Your task to perform on an android device: remove spam from my inbox in the gmail app Image 0: 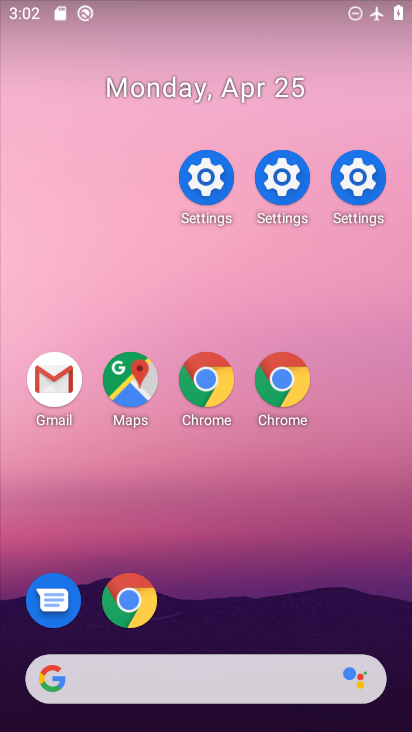
Step 0: drag from (294, 641) to (399, 523)
Your task to perform on an android device: remove spam from my inbox in the gmail app Image 1: 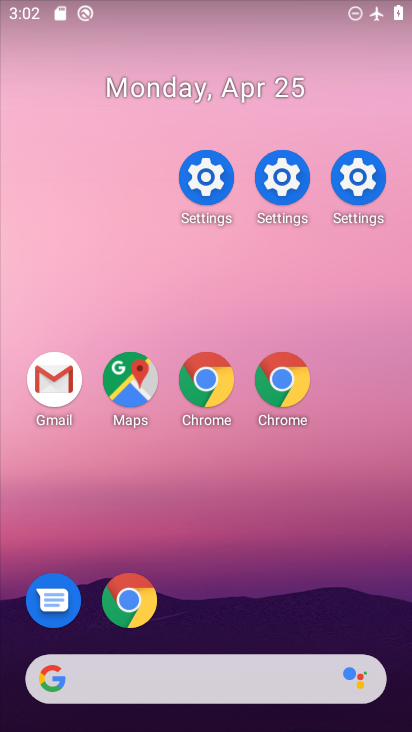
Step 1: drag from (282, 686) to (150, 118)
Your task to perform on an android device: remove spam from my inbox in the gmail app Image 2: 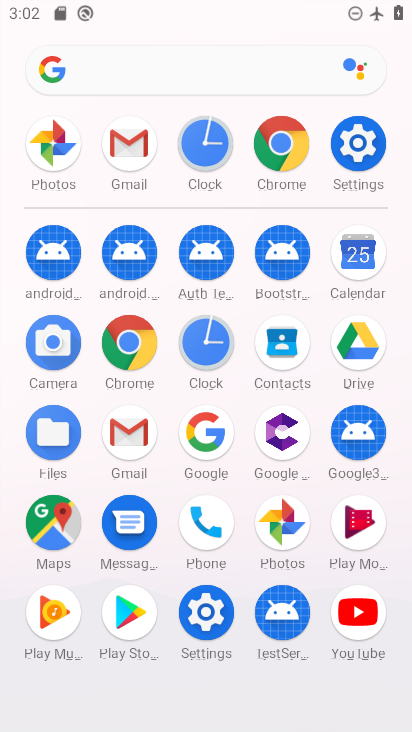
Step 2: click (130, 427)
Your task to perform on an android device: remove spam from my inbox in the gmail app Image 3: 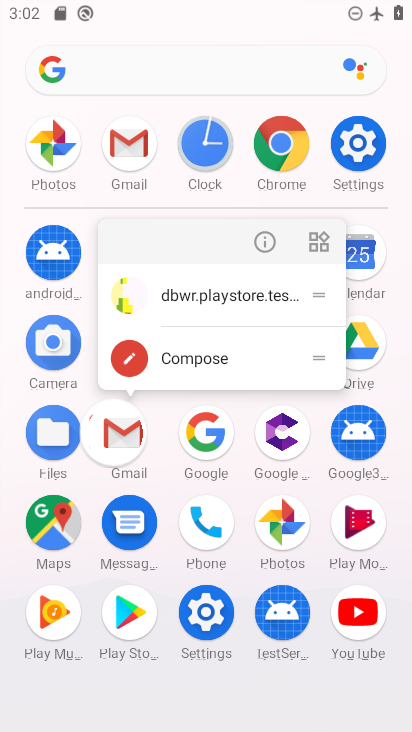
Step 3: click (121, 423)
Your task to perform on an android device: remove spam from my inbox in the gmail app Image 4: 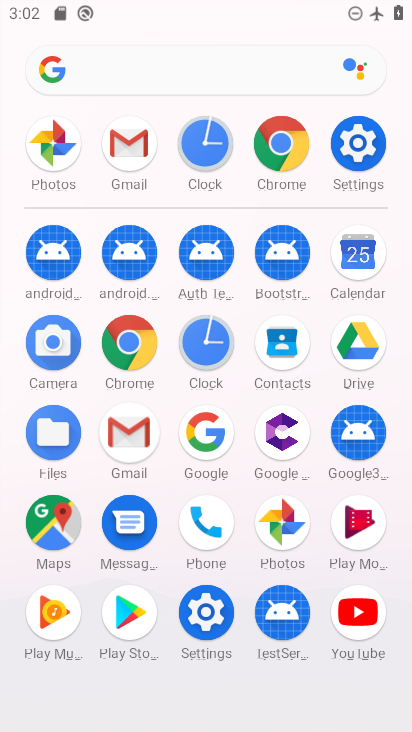
Step 4: click (121, 423)
Your task to perform on an android device: remove spam from my inbox in the gmail app Image 5: 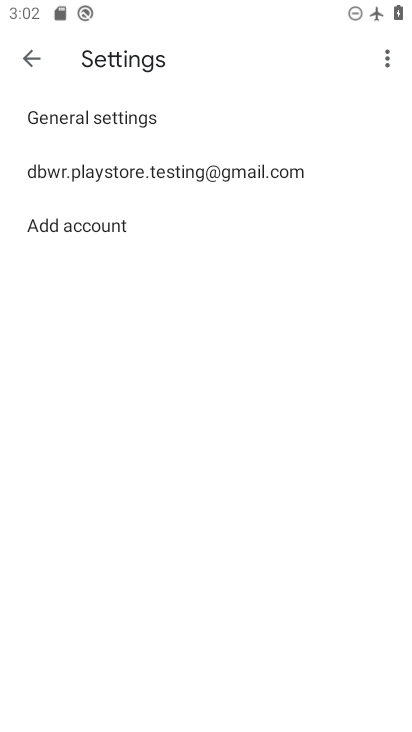
Step 5: click (121, 424)
Your task to perform on an android device: remove spam from my inbox in the gmail app Image 6: 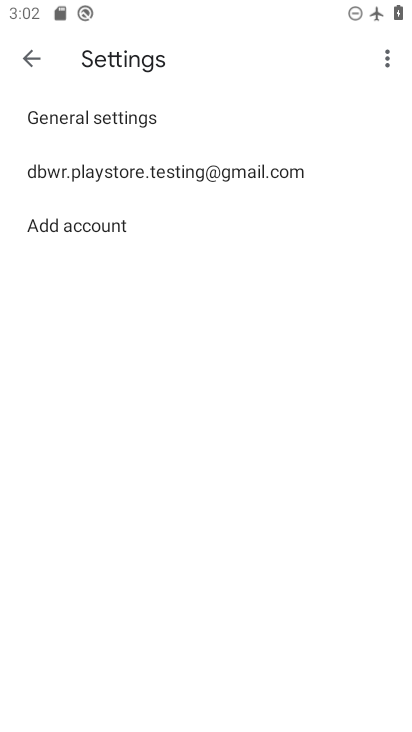
Step 6: click (145, 172)
Your task to perform on an android device: remove spam from my inbox in the gmail app Image 7: 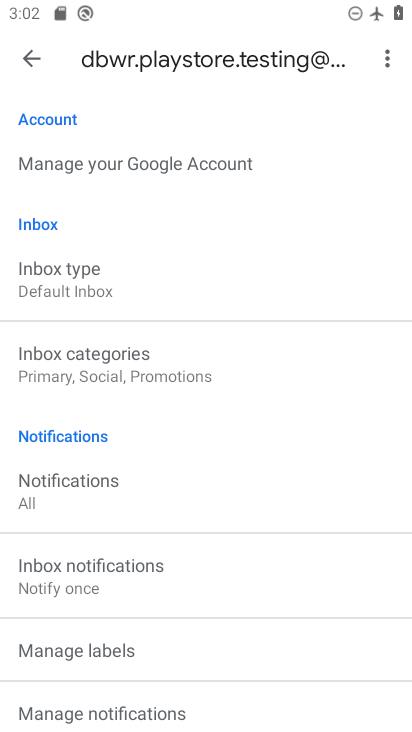
Step 7: click (50, 309)
Your task to perform on an android device: remove spam from my inbox in the gmail app Image 8: 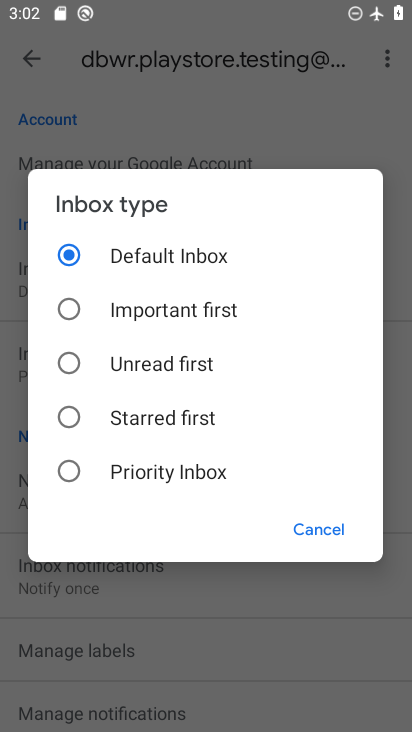
Step 8: click (65, 473)
Your task to perform on an android device: remove spam from my inbox in the gmail app Image 9: 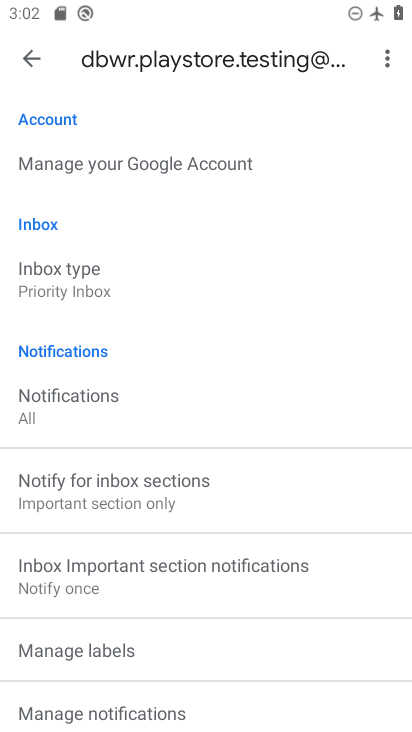
Step 9: click (33, 63)
Your task to perform on an android device: remove spam from my inbox in the gmail app Image 10: 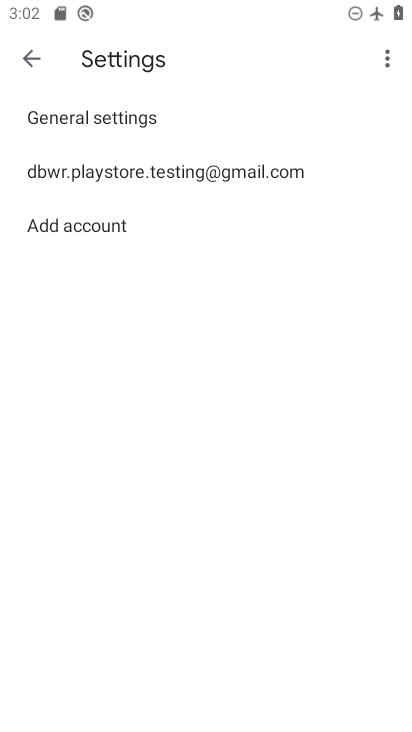
Step 10: click (28, 51)
Your task to perform on an android device: remove spam from my inbox in the gmail app Image 11: 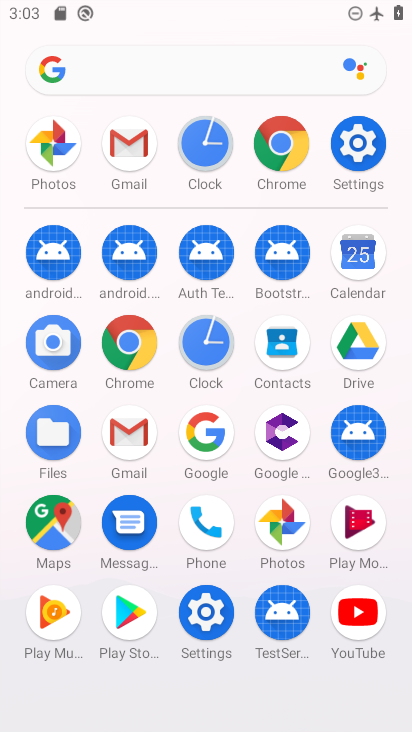
Step 11: click (126, 421)
Your task to perform on an android device: remove spam from my inbox in the gmail app Image 12: 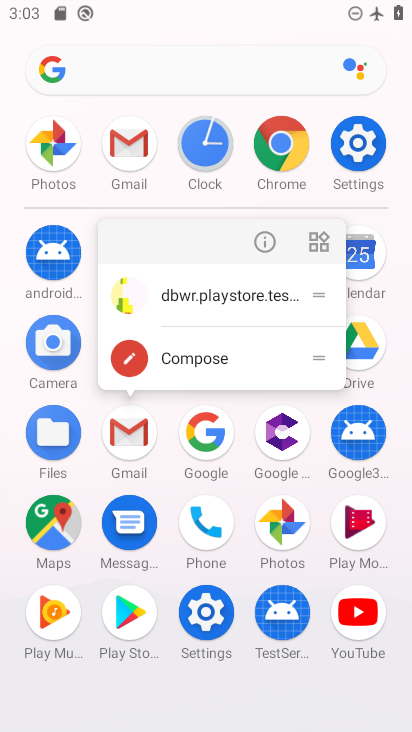
Step 12: click (194, 306)
Your task to perform on an android device: remove spam from my inbox in the gmail app Image 13: 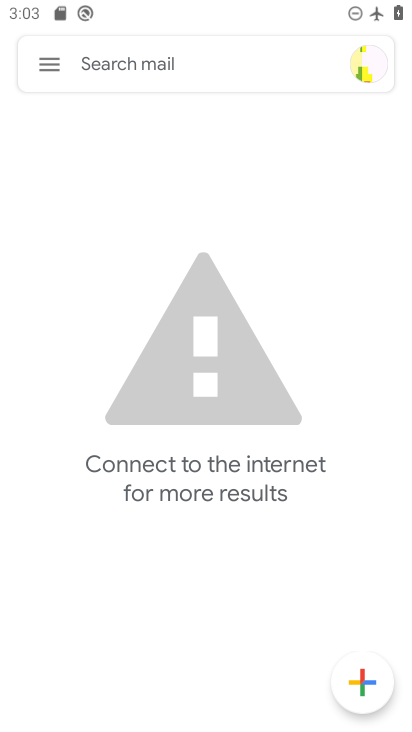
Step 13: press home button
Your task to perform on an android device: remove spam from my inbox in the gmail app Image 14: 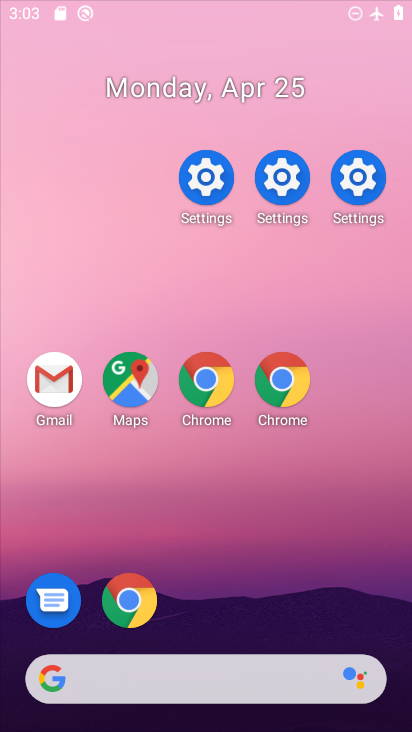
Step 14: click (48, 57)
Your task to perform on an android device: remove spam from my inbox in the gmail app Image 15: 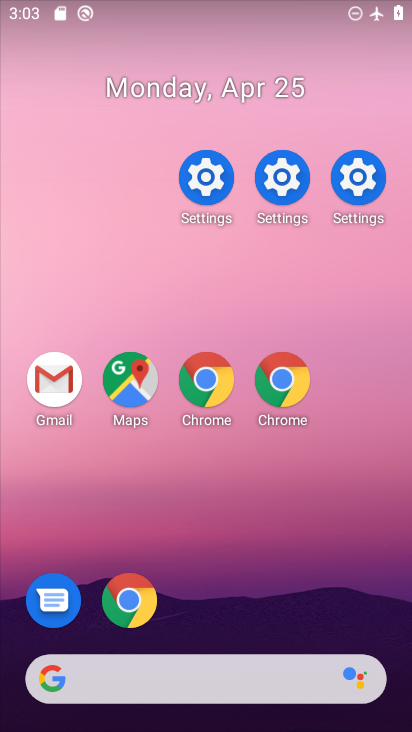
Step 15: drag from (244, 702) to (175, 157)
Your task to perform on an android device: remove spam from my inbox in the gmail app Image 16: 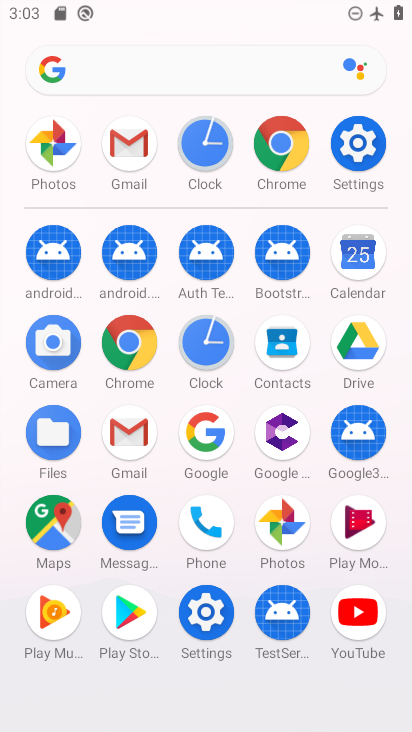
Step 16: click (119, 427)
Your task to perform on an android device: remove spam from my inbox in the gmail app Image 17: 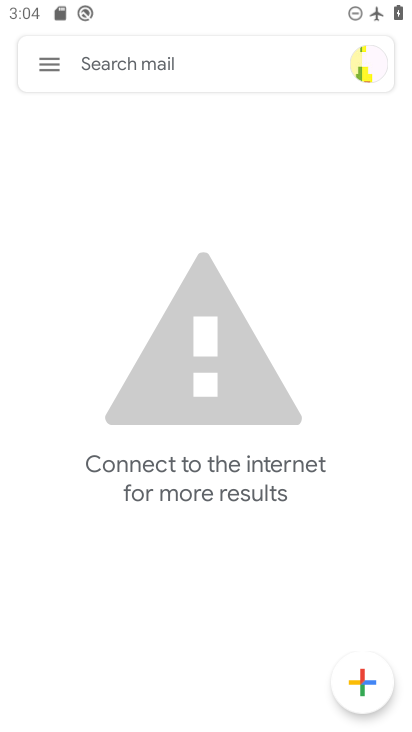
Step 17: click (50, 63)
Your task to perform on an android device: remove spam from my inbox in the gmail app Image 18: 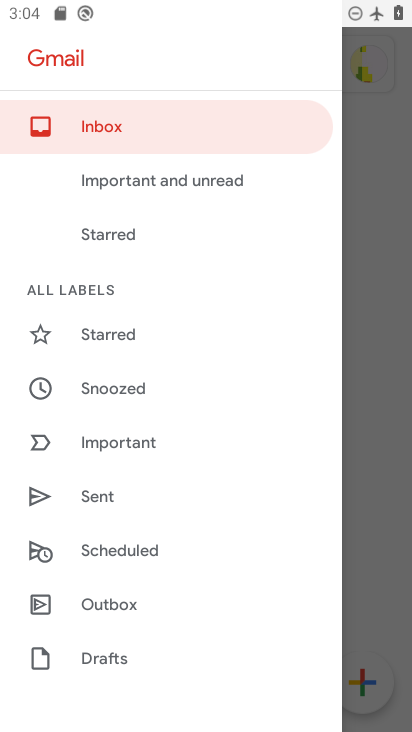
Step 18: drag from (147, 611) to (122, 199)
Your task to perform on an android device: remove spam from my inbox in the gmail app Image 19: 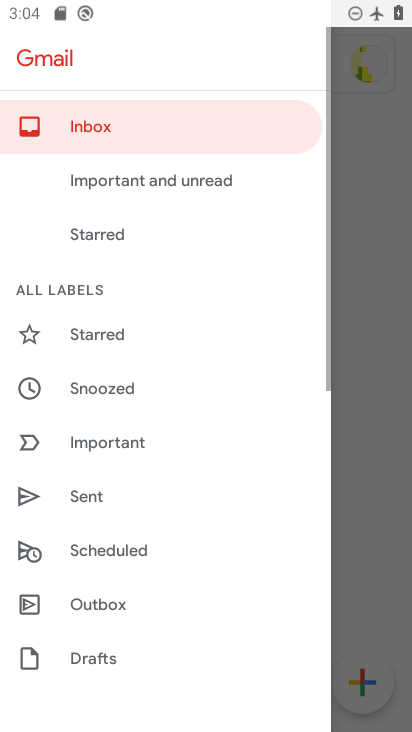
Step 19: drag from (140, 561) to (115, 230)
Your task to perform on an android device: remove spam from my inbox in the gmail app Image 20: 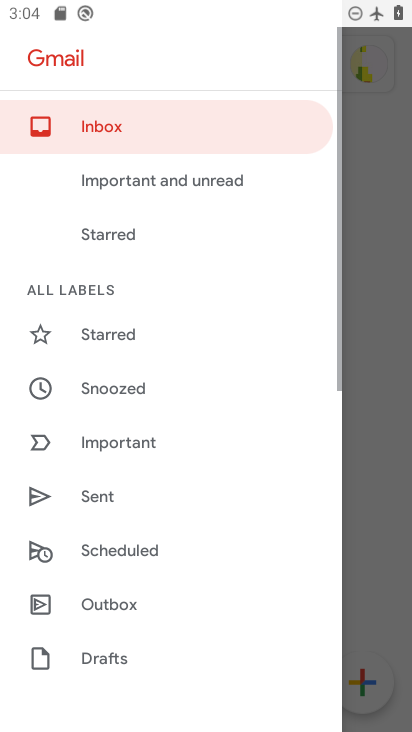
Step 20: drag from (157, 474) to (118, 164)
Your task to perform on an android device: remove spam from my inbox in the gmail app Image 21: 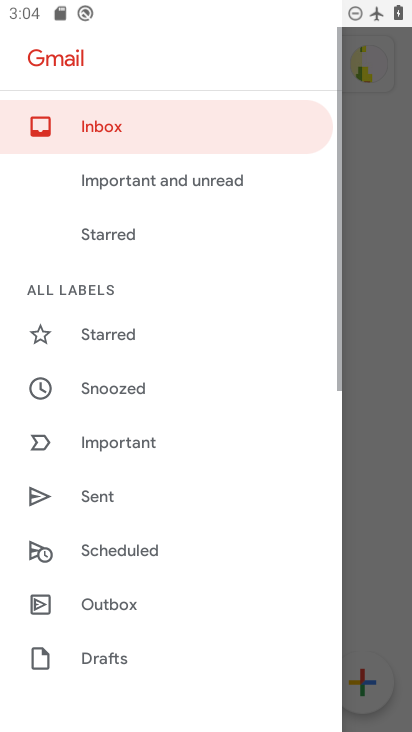
Step 21: drag from (168, 385) to (144, 42)
Your task to perform on an android device: remove spam from my inbox in the gmail app Image 22: 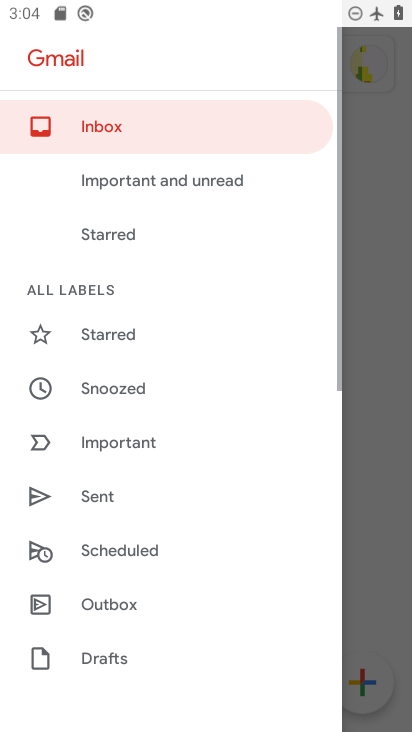
Step 22: drag from (126, 506) to (89, 209)
Your task to perform on an android device: remove spam from my inbox in the gmail app Image 23: 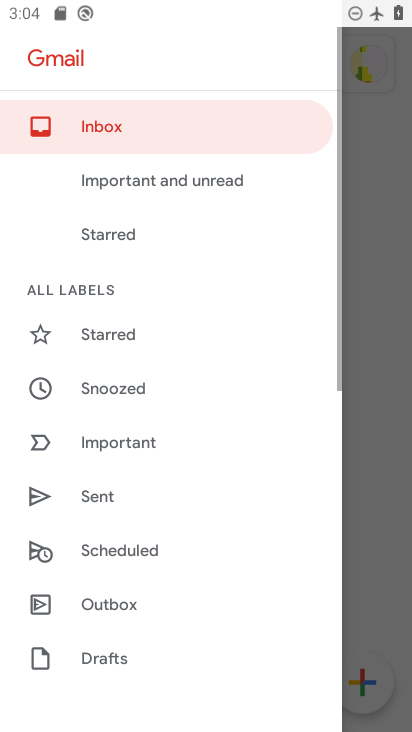
Step 23: drag from (120, 443) to (84, 105)
Your task to perform on an android device: remove spam from my inbox in the gmail app Image 24: 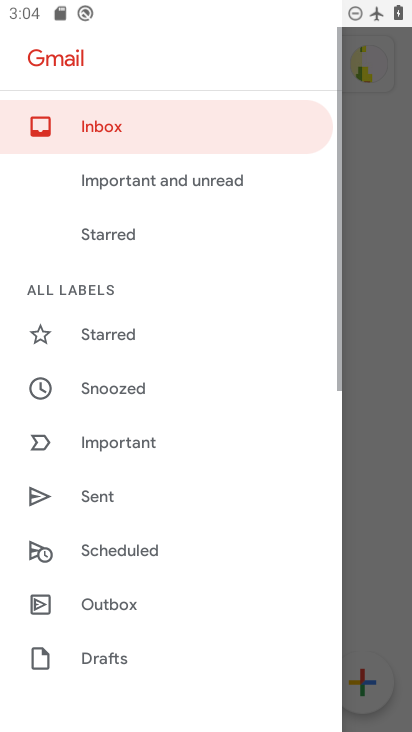
Step 24: drag from (152, 377) to (131, 59)
Your task to perform on an android device: remove spam from my inbox in the gmail app Image 25: 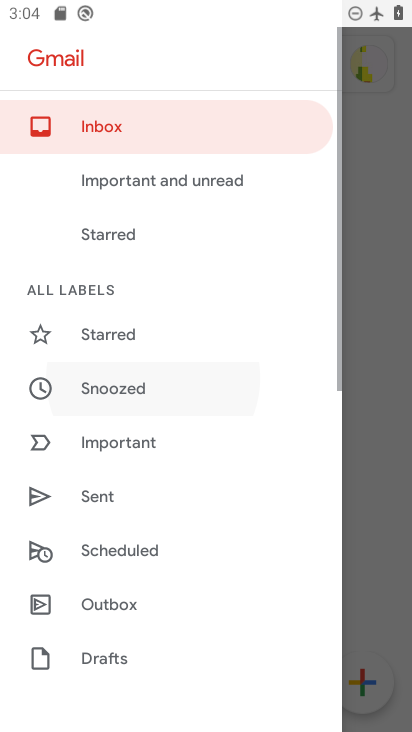
Step 25: drag from (182, 517) to (115, 47)
Your task to perform on an android device: remove spam from my inbox in the gmail app Image 26: 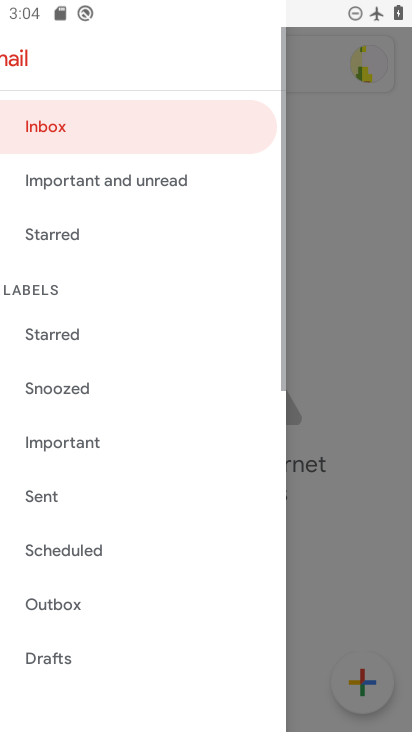
Step 26: drag from (184, 627) to (154, 14)
Your task to perform on an android device: remove spam from my inbox in the gmail app Image 27: 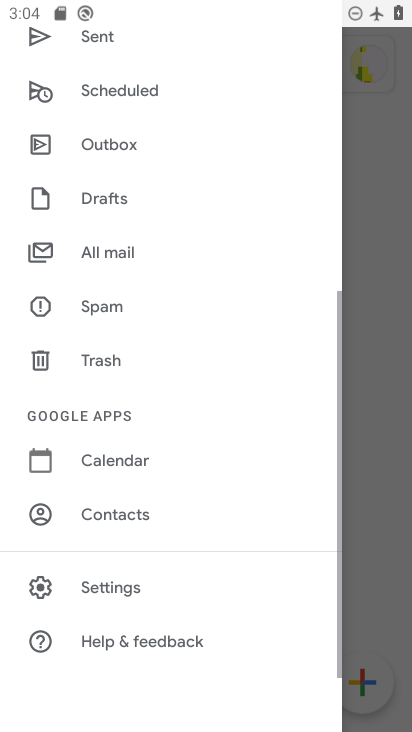
Step 27: drag from (65, 486) to (140, 19)
Your task to perform on an android device: remove spam from my inbox in the gmail app Image 28: 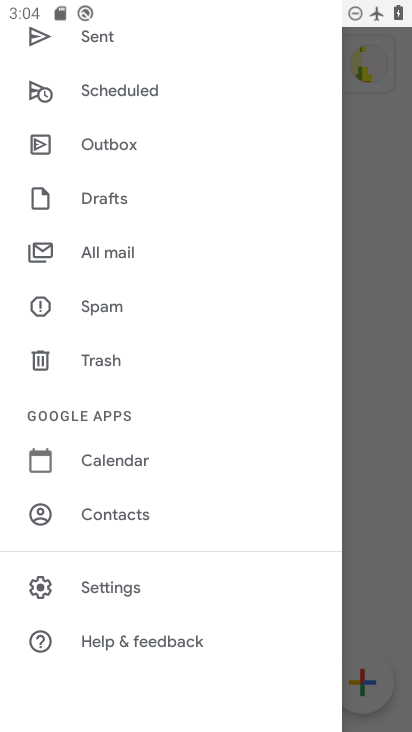
Step 28: click (115, 249)
Your task to perform on an android device: remove spam from my inbox in the gmail app Image 29: 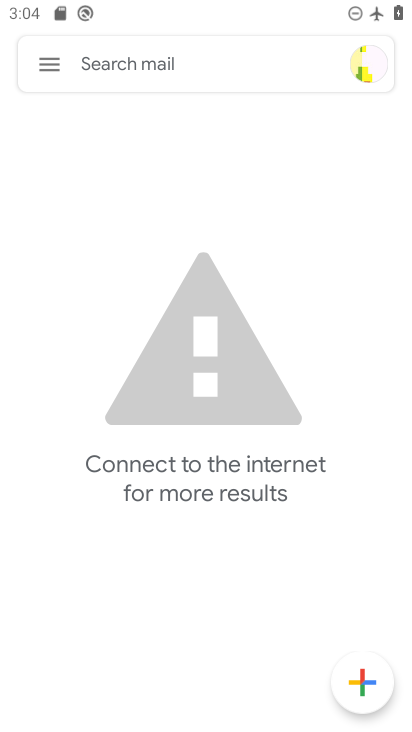
Step 29: task complete